Your task to perform on an android device: Go to Reddit.com Image 0: 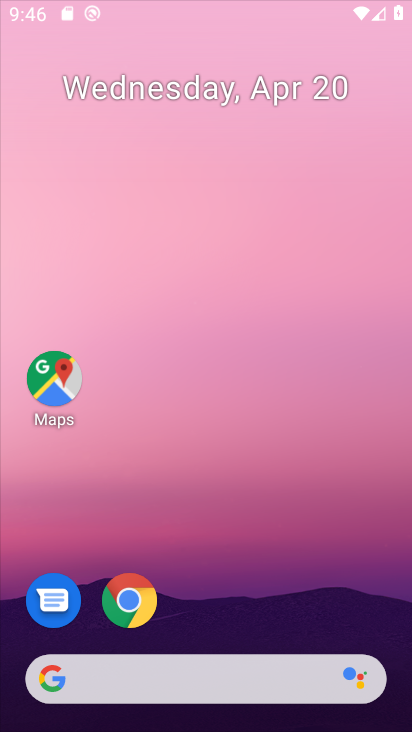
Step 0: drag from (222, 306) to (226, 120)
Your task to perform on an android device: Go to Reddit.com Image 1: 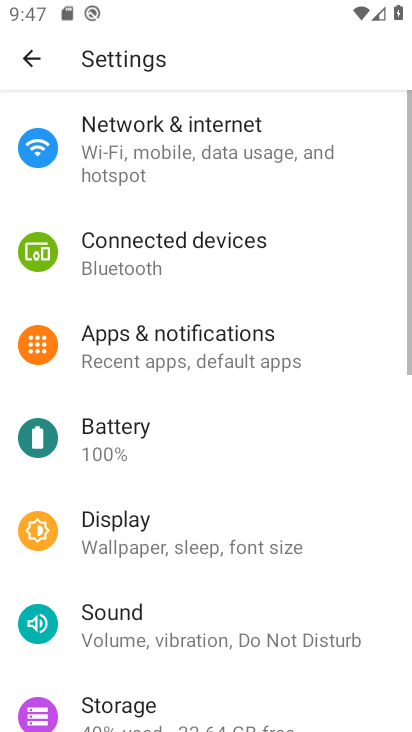
Step 1: press home button
Your task to perform on an android device: Go to Reddit.com Image 2: 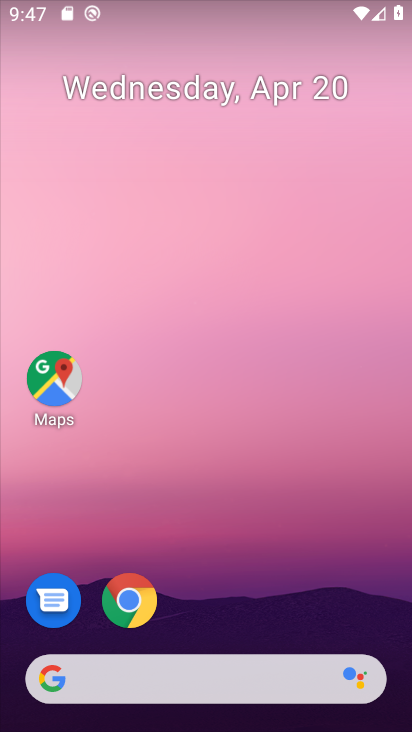
Step 2: click (120, 614)
Your task to perform on an android device: Go to Reddit.com Image 3: 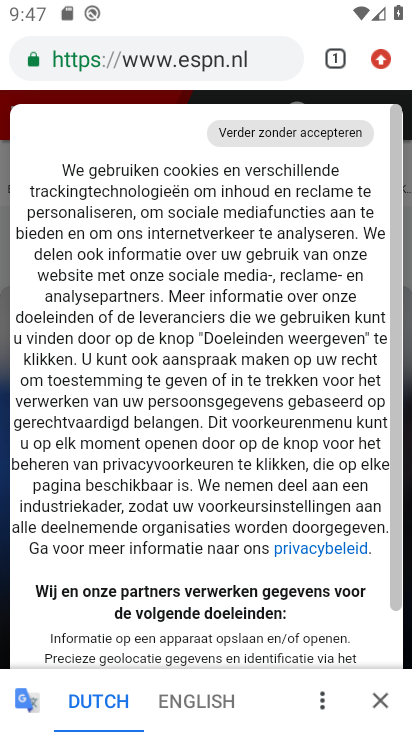
Step 3: click (195, 43)
Your task to perform on an android device: Go to Reddit.com Image 4: 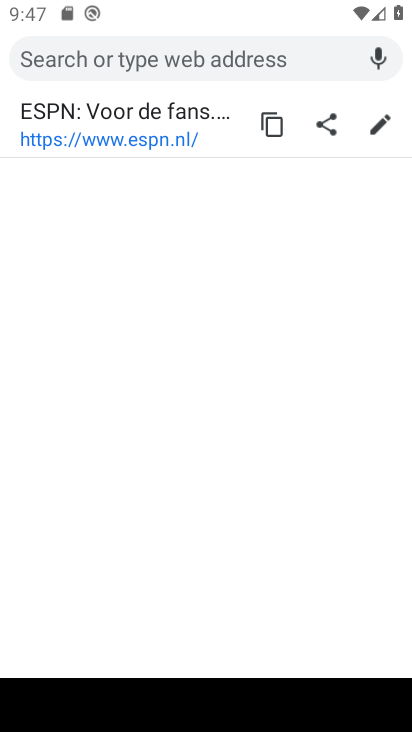
Step 4: type "Reddit.com"
Your task to perform on an android device: Go to Reddit.com Image 5: 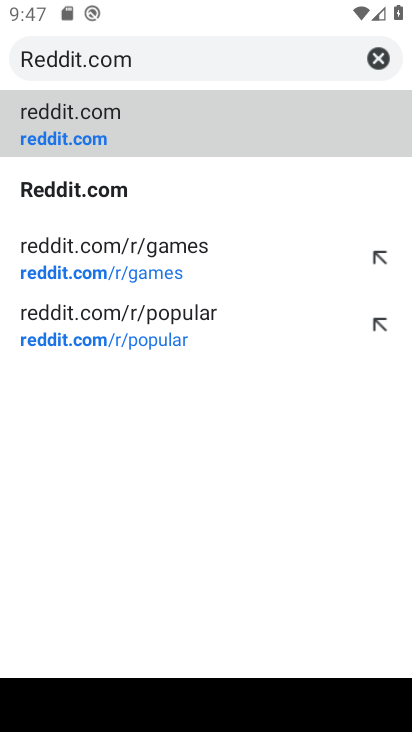
Step 5: click (60, 142)
Your task to perform on an android device: Go to Reddit.com Image 6: 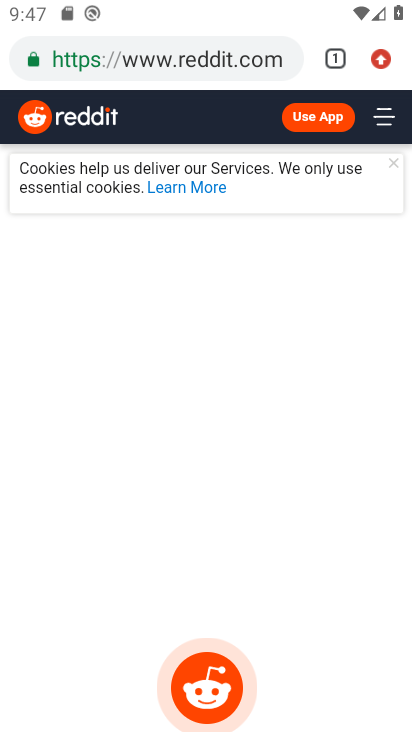
Step 6: task complete